Your task to perform on an android device: stop showing notifications on the lock screen Image 0: 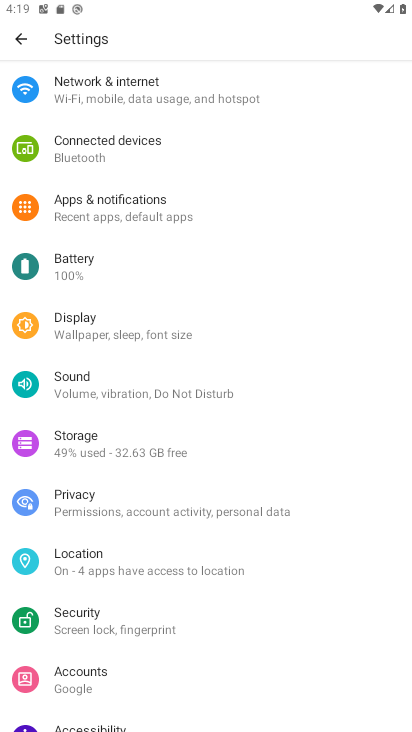
Step 0: press home button
Your task to perform on an android device: stop showing notifications on the lock screen Image 1: 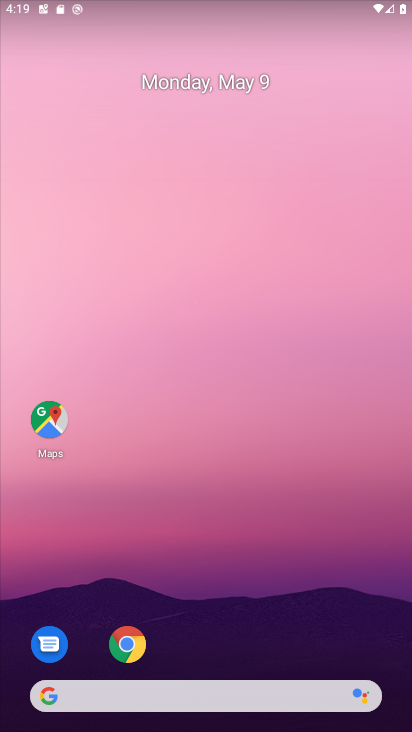
Step 1: drag from (239, 605) to (182, 11)
Your task to perform on an android device: stop showing notifications on the lock screen Image 2: 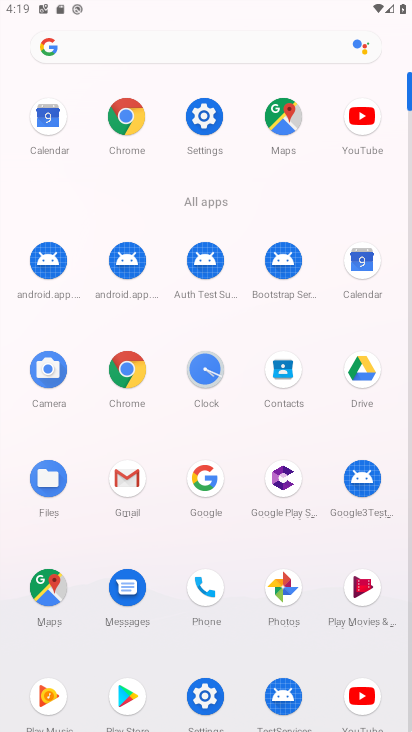
Step 2: click (204, 118)
Your task to perform on an android device: stop showing notifications on the lock screen Image 3: 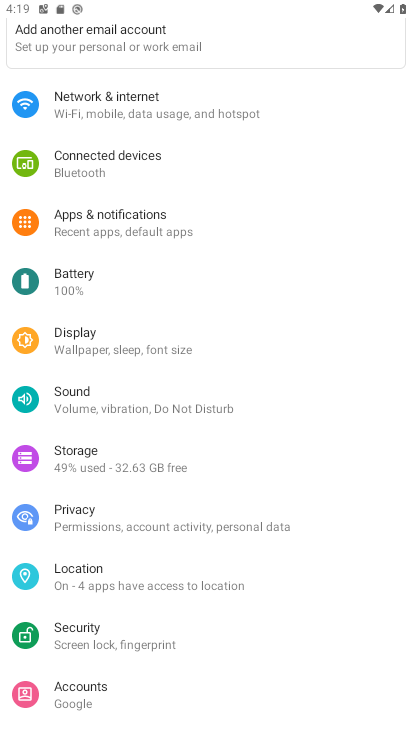
Step 3: click (150, 225)
Your task to perform on an android device: stop showing notifications on the lock screen Image 4: 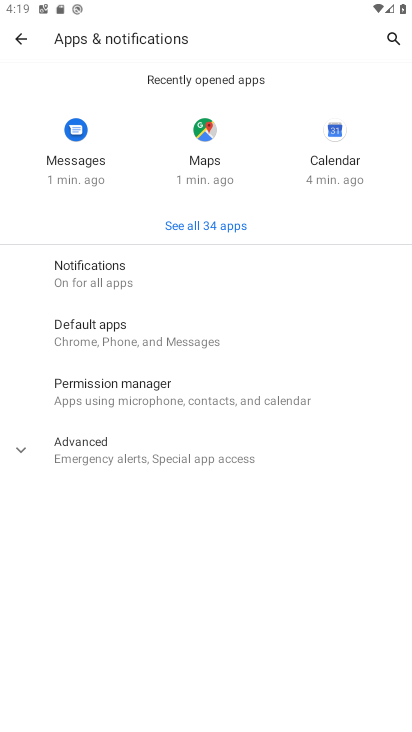
Step 4: click (97, 264)
Your task to perform on an android device: stop showing notifications on the lock screen Image 5: 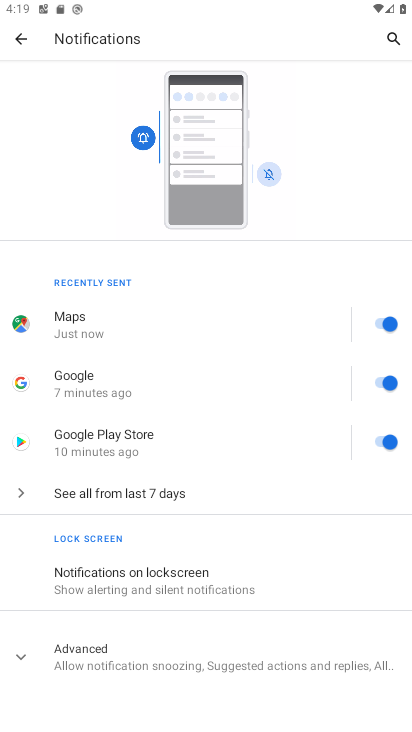
Step 5: click (165, 577)
Your task to perform on an android device: stop showing notifications on the lock screen Image 6: 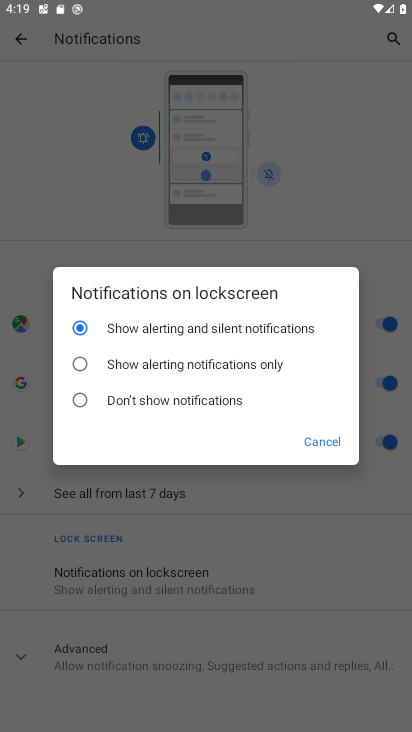
Step 6: click (81, 401)
Your task to perform on an android device: stop showing notifications on the lock screen Image 7: 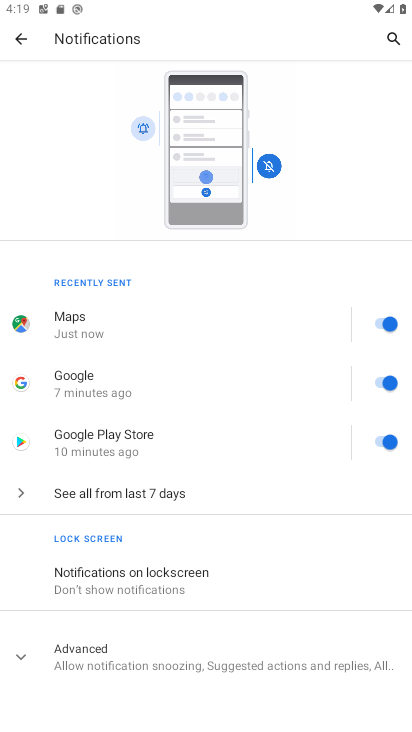
Step 7: task complete